Your task to perform on an android device: toggle notification dots Image 0: 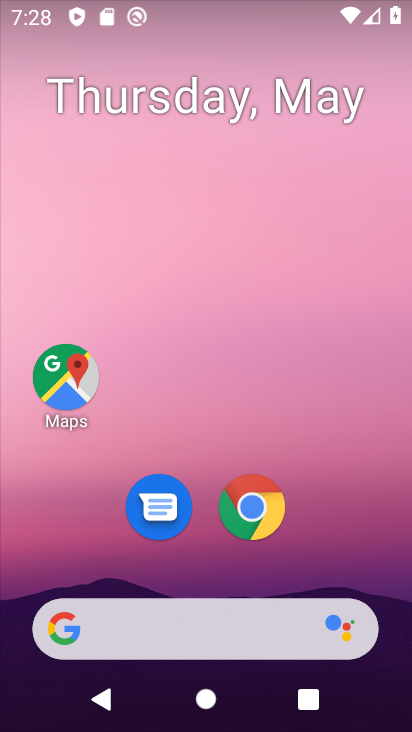
Step 0: drag from (357, 497) to (352, 9)
Your task to perform on an android device: toggle notification dots Image 1: 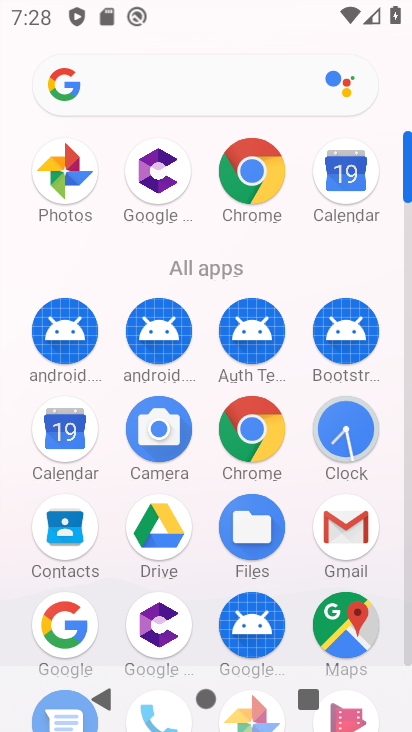
Step 1: drag from (395, 604) to (396, 200)
Your task to perform on an android device: toggle notification dots Image 2: 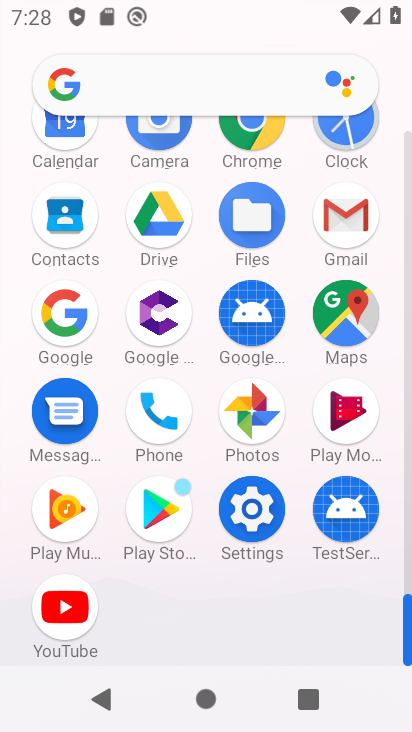
Step 2: click (264, 528)
Your task to perform on an android device: toggle notification dots Image 3: 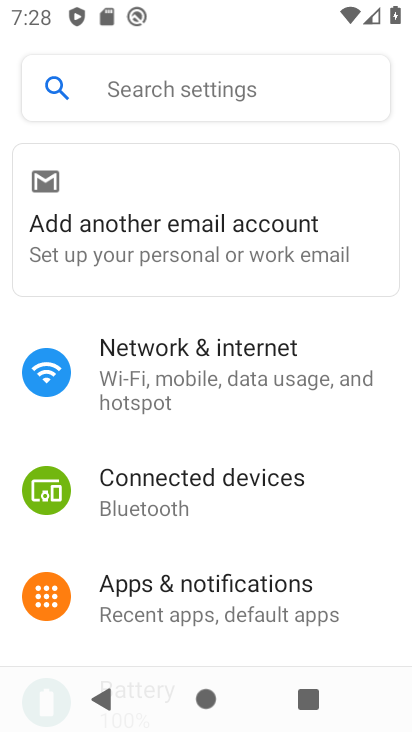
Step 3: click (255, 594)
Your task to perform on an android device: toggle notification dots Image 4: 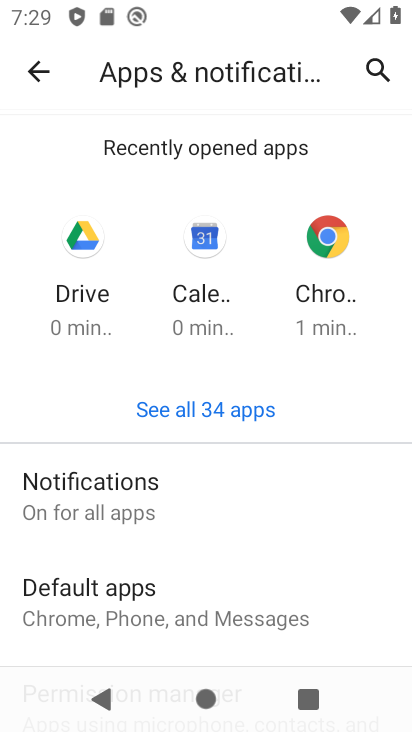
Step 4: click (106, 512)
Your task to perform on an android device: toggle notification dots Image 5: 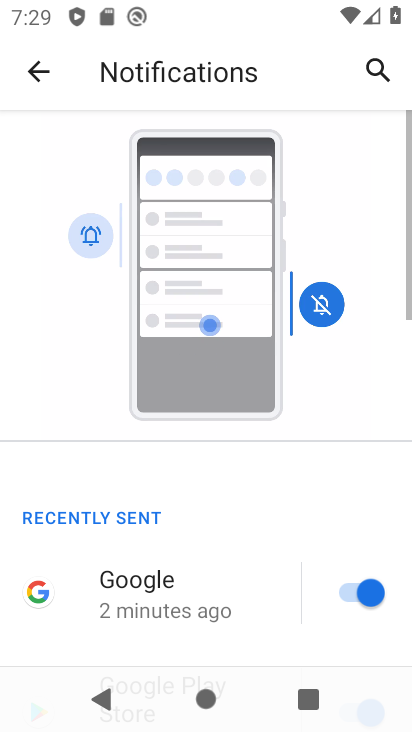
Step 5: drag from (168, 606) to (244, 124)
Your task to perform on an android device: toggle notification dots Image 6: 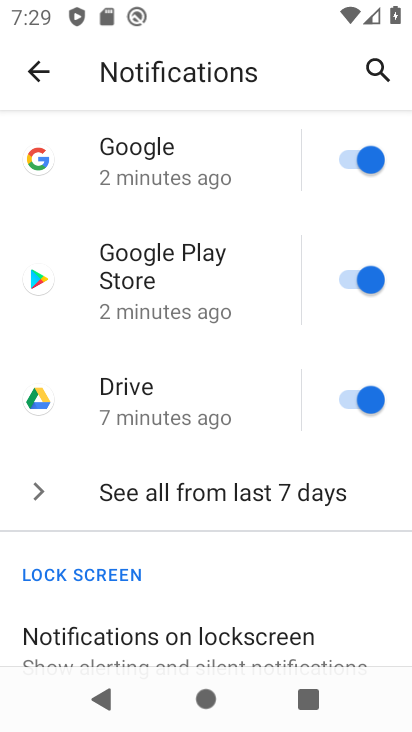
Step 6: drag from (188, 509) to (241, 74)
Your task to perform on an android device: toggle notification dots Image 7: 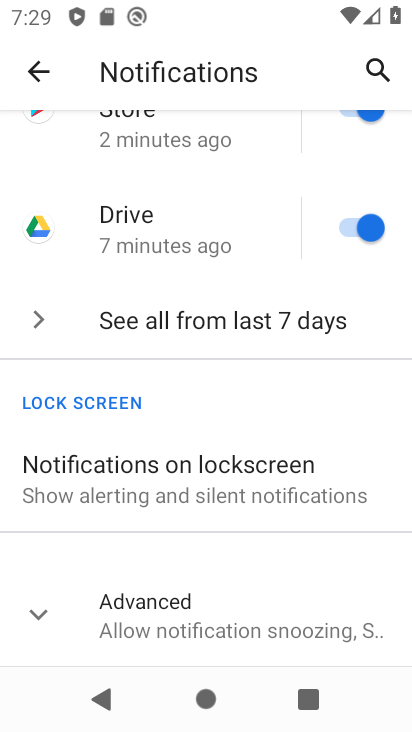
Step 7: click (171, 612)
Your task to perform on an android device: toggle notification dots Image 8: 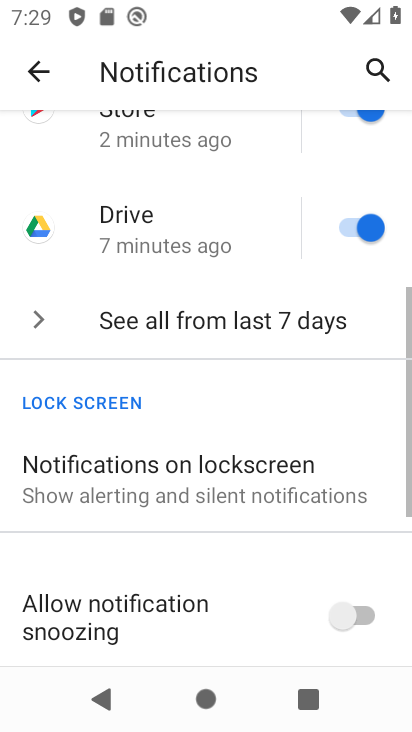
Step 8: drag from (171, 612) to (197, 210)
Your task to perform on an android device: toggle notification dots Image 9: 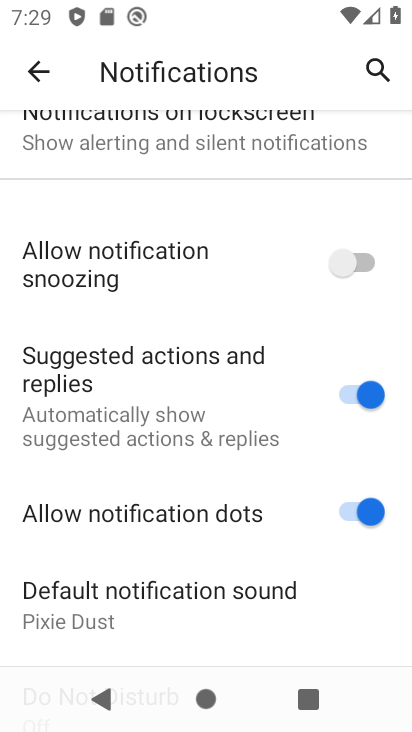
Step 9: click (361, 526)
Your task to perform on an android device: toggle notification dots Image 10: 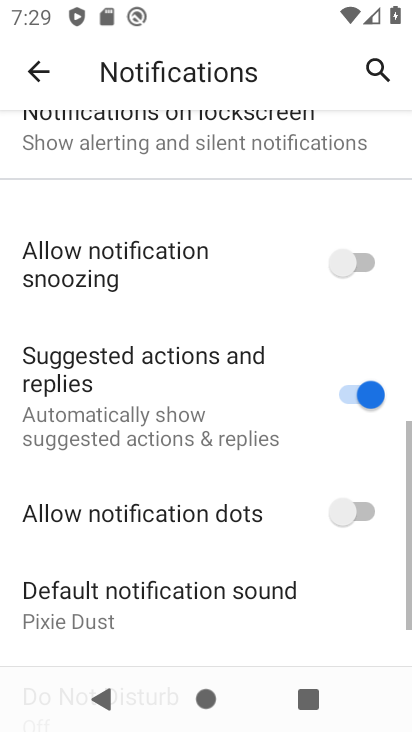
Step 10: task complete